Your task to perform on an android device: Search for sushi restaurants on Maps Image 0: 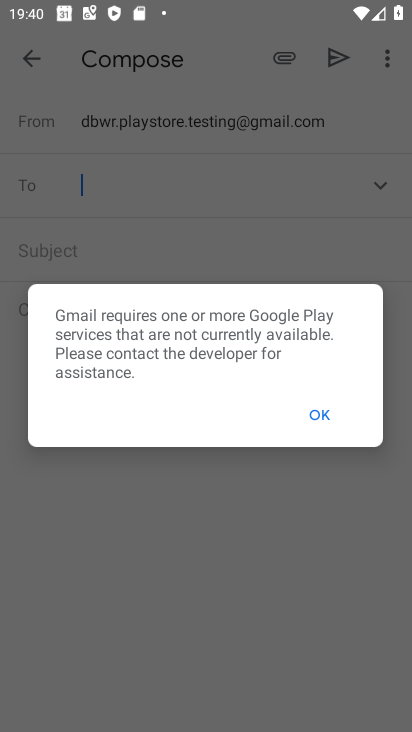
Step 0: press back button
Your task to perform on an android device: Search for sushi restaurants on Maps Image 1: 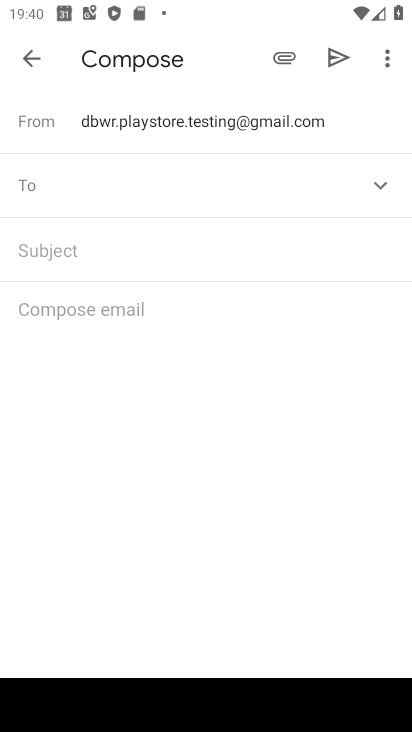
Step 1: press back button
Your task to perform on an android device: Search for sushi restaurants on Maps Image 2: 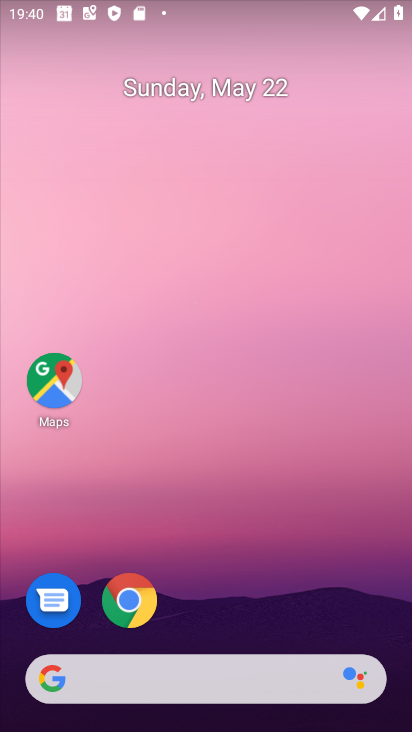
Step 2: drag from (214, 550) to (222, 16)
Your task to perform on an android device: Search for sushi restaurants on Maps Image 3: 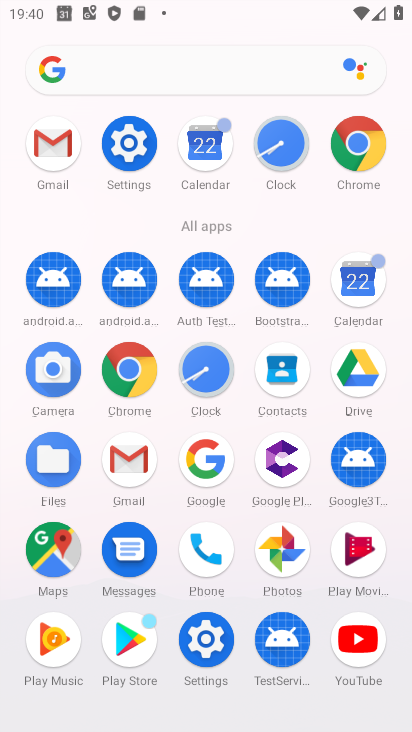
Step 3: click (47, 550)
Your task to perform on an android device: Search for sushi restaurants on Maps Image 4: 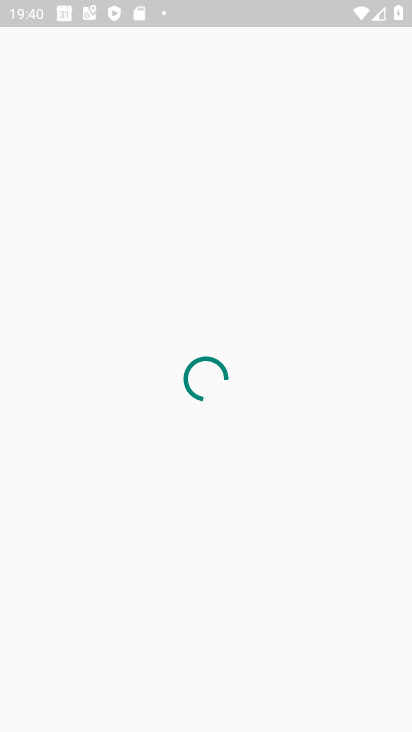
Step 4: click (31, 62)
Your task to perform on an android device: Search for sushi restaurants on Maps Image 5: 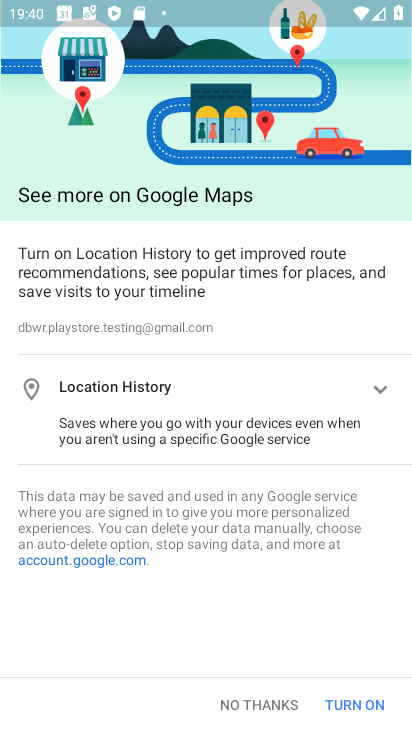
Step 5: click (351, 700)
Your task to perform on an android device: Search for sushi restaurants on Maps Image 6: 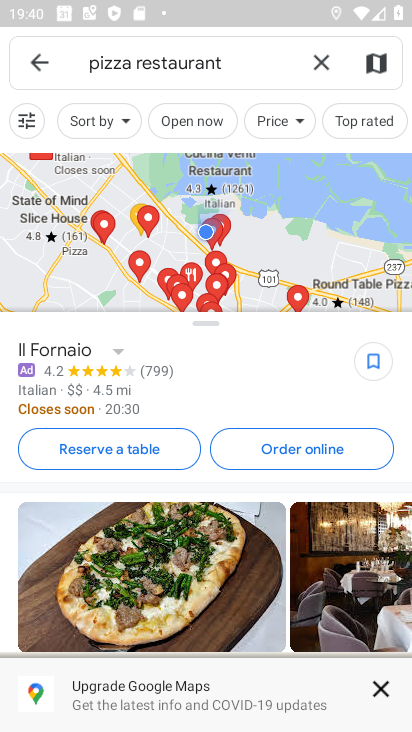
Step 6: click (29, 59)
Your task to perform on an android device: Search for sushi restaurants on Maps Image 7: 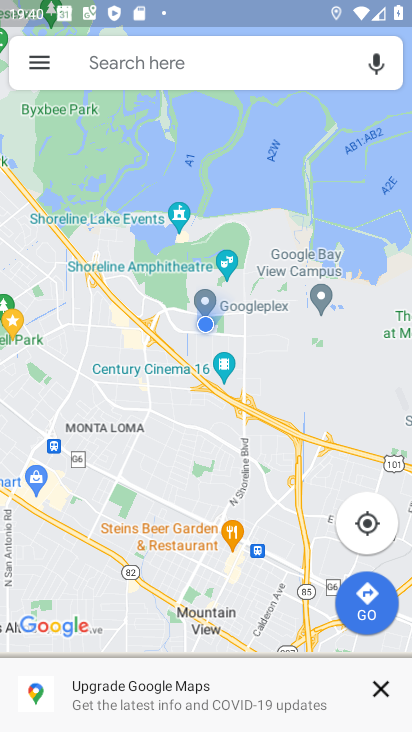
Step 7: task complete